Your task to perform on an android device: Open Google Maps and go to "Timeline" Image 0: 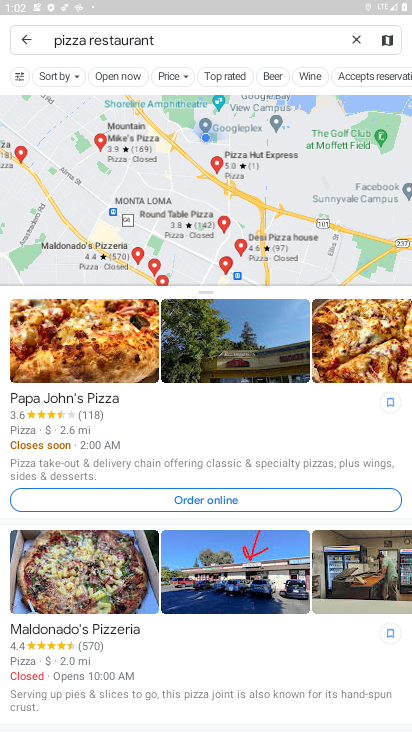
Step 0: click (19, 36)
Your task to perform on an android device: Open Google Maps and go to "Timeline" Image 1: 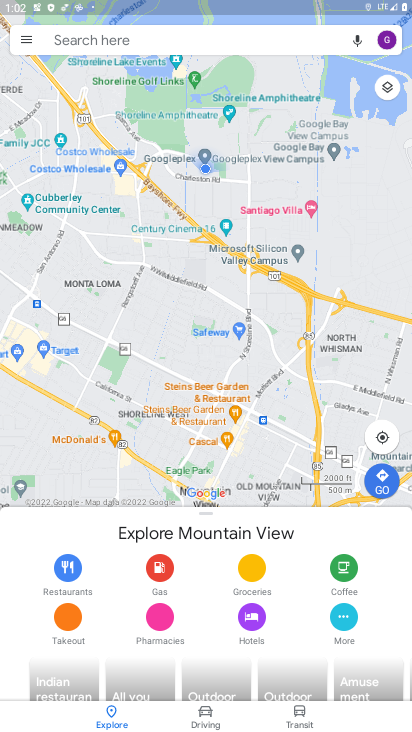
Step 1: click (30, 42)
Your task to perform on an android device: Open Google Maps and go to "Timeline" Image 2: 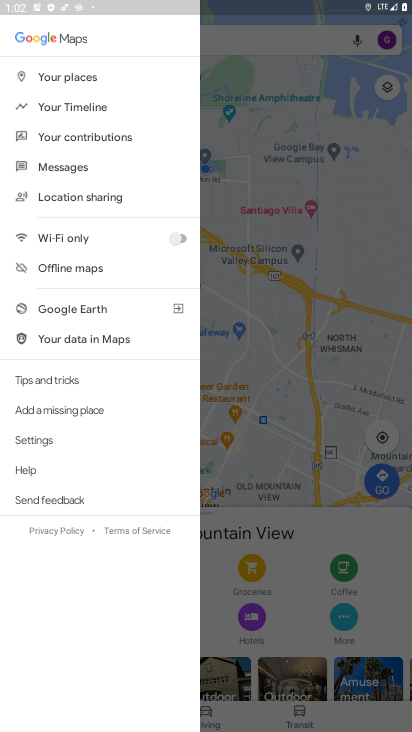
Step 2: click (68, 108)
Your task to perform on an android device: Open Google Maps and go to "Timeline" Image 3: 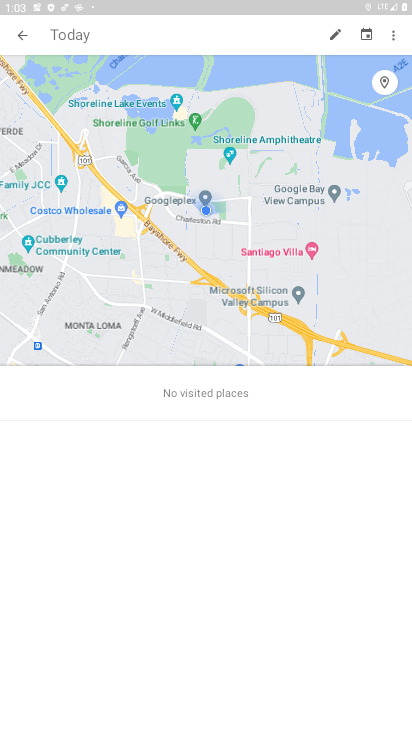
Step 3: task complete